Your task to perform on an android device: star an email in the gmail app Image 0: 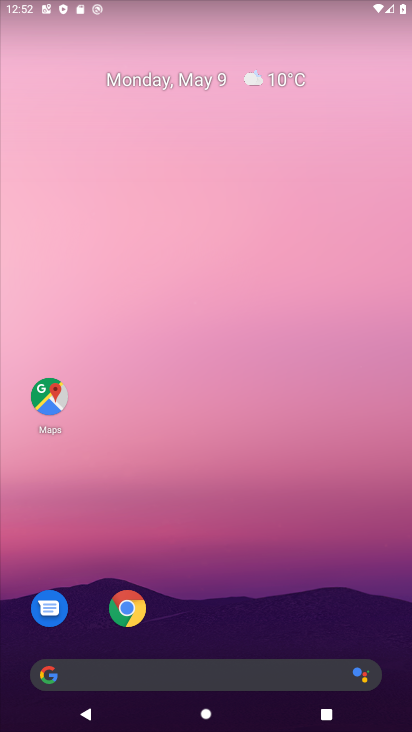
Step 0: drag from (302, 645) to (287, 272)
Your task to perform on an android device: star an email in the gmail app Image 1: 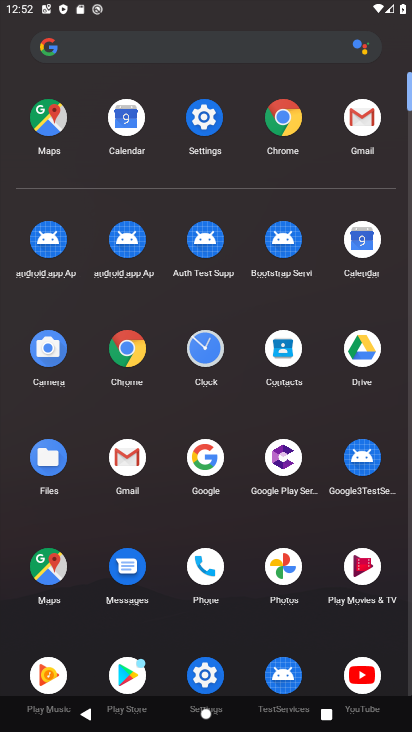
Step 1: click (128, 472)
Your task to perform on an android device: star an email in the gmail app Image 2: 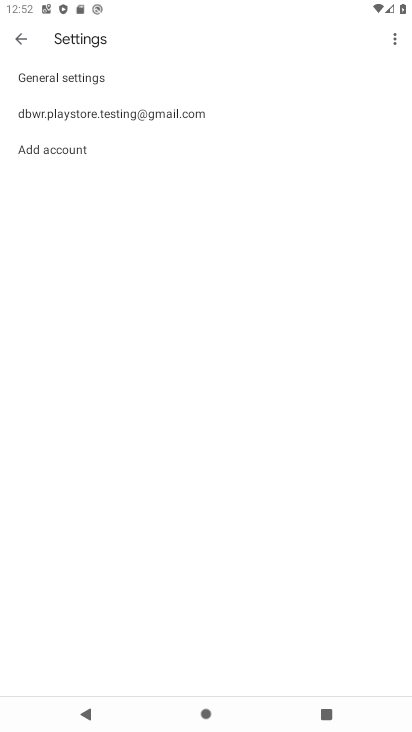
Step 2: click (19, 42)
Your task to perform on an android device: star an email in the gmail app Image 3: 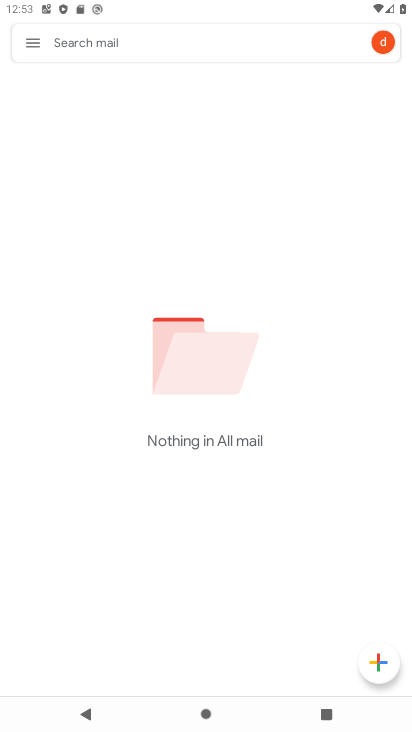
Step 3: click (36, 54)
Your task to perform on an android device: star an email in the gmail app Image 4: 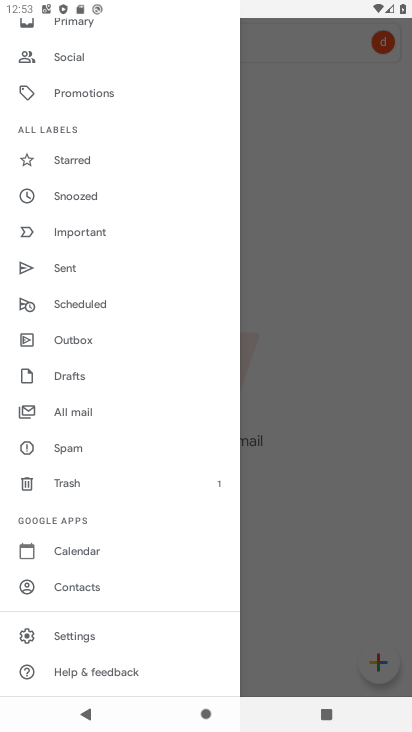
Step 4: click (104, 626)
Your task to perform on an android device: star an email in the gmail app Image 5: 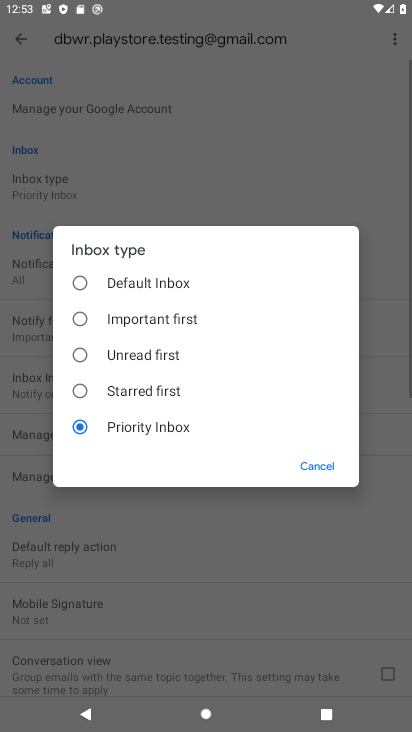
Step 5: click (321, 450)
Your task to perform on an android device: star an email in the gmail app Image 6: 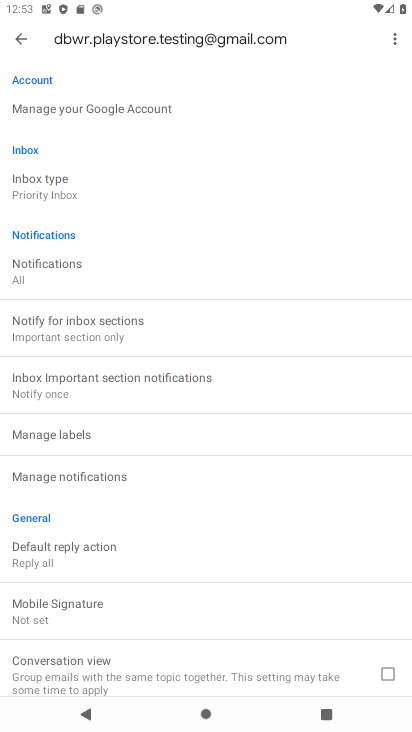
Step 6: task complete